Your task to perform on an android device: turn pop-ups on in chrome Image 0: 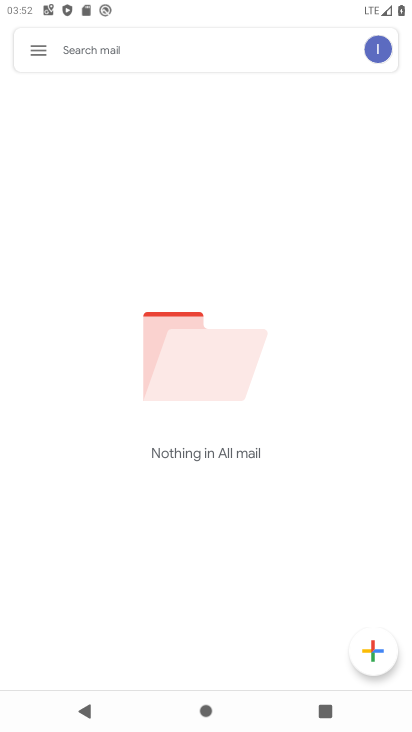
Step 0: press home button
Your task to perform on an android device: turn pop-ups on in chrome Image 1: 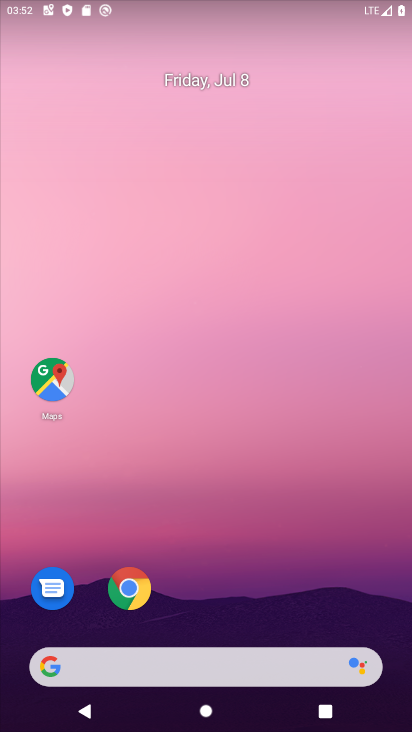
Step 1: click (121, 584)
Your task to perform on an android device: turn pop-ups on in chrome Image 2: 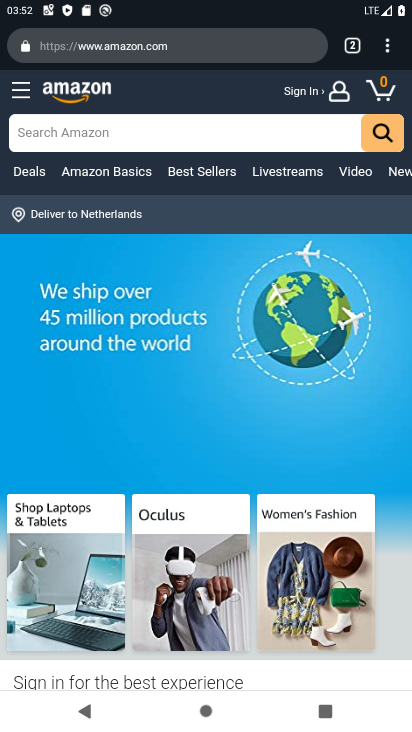
Step 2: click (391, 52)
Your task to perform on an android device: turn pop-ups on in chrome Image 3: 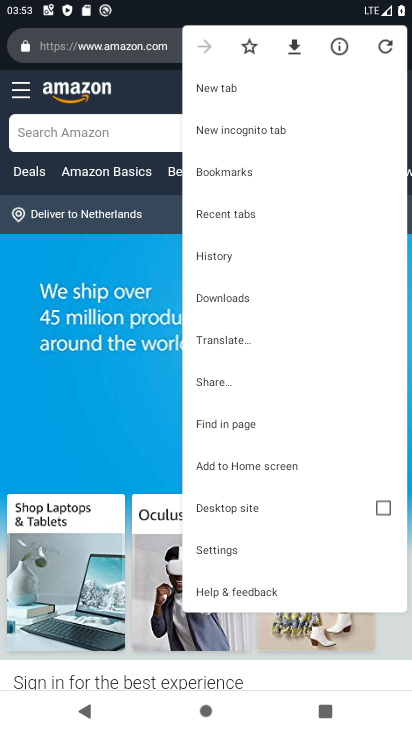
Step 3: click (231, 547)
Your task to perform on an android device: turn pop-ups on in chrome Image 4: 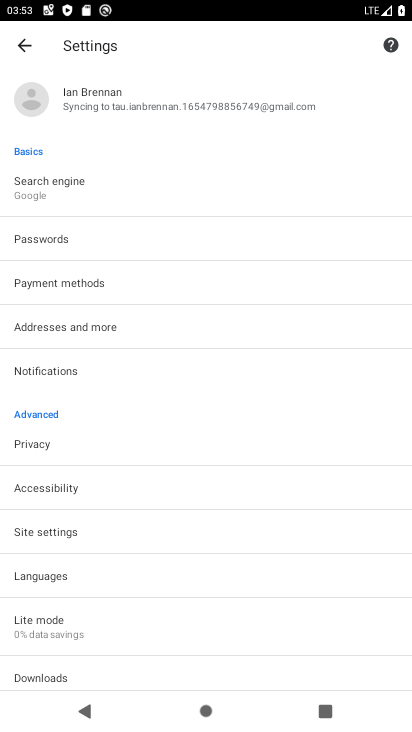
Step 4: click (53, 531)
Your task to perform on an android device: turn pop-ups on in chrome Image 5: 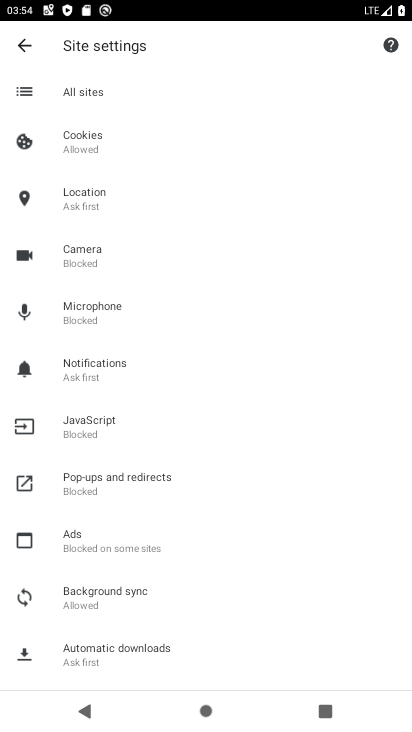
Step 5: click (119, 488)
Your task to perform on an android device: turn pop-ups on in chrome Image 6: 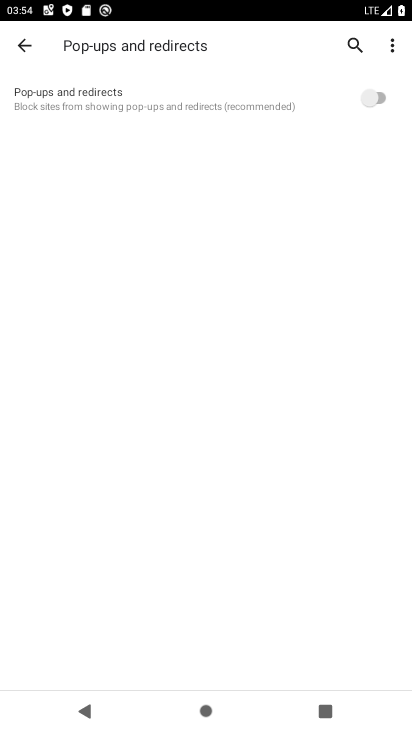
Step 6: click (382, 100)
Your task to perform on an android device: turn pop-ups on in chrome Image 7: 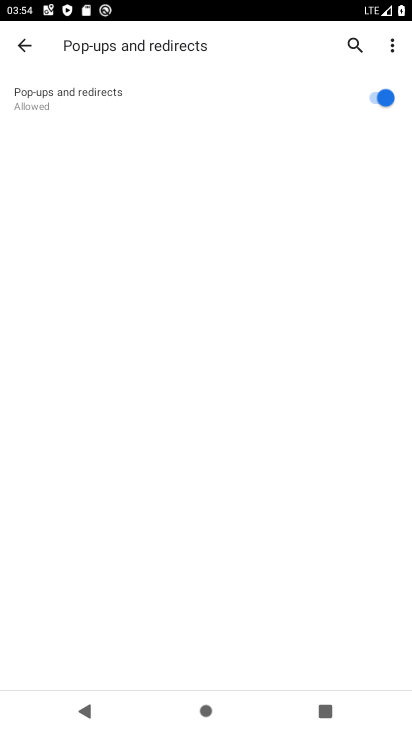
Step 7: task complete